Your task to perform on an android device: toggle pop-ups in chrome Image 0: 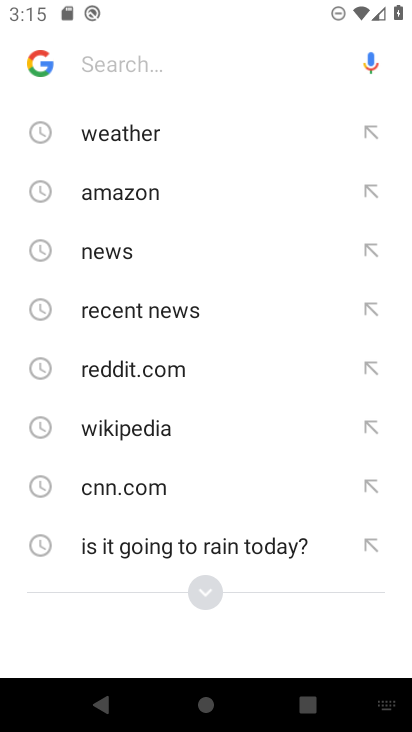
Step 0: press home button
Your task to perform on an android device: toggle pop-ups in chrome Image 1: 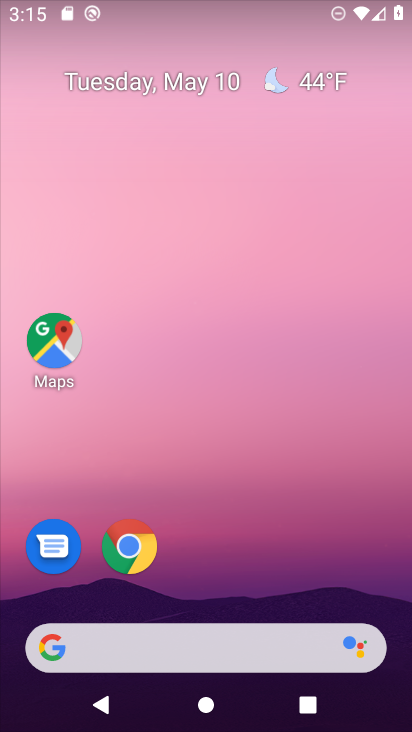
Step 1: drag from (256, 364) to (300, 1)
Your task to perform on an android device: toggle pop-ups in chrome Image 2: 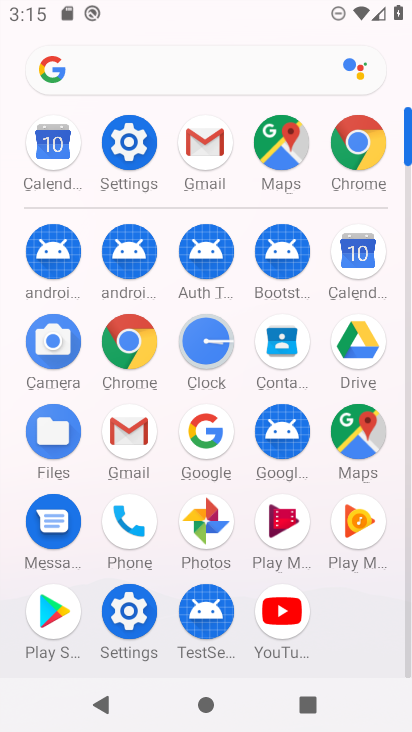
Step 2: click (344, 169)
Your task to perform on an android device: toggle pop-ups in chrome Image 3: 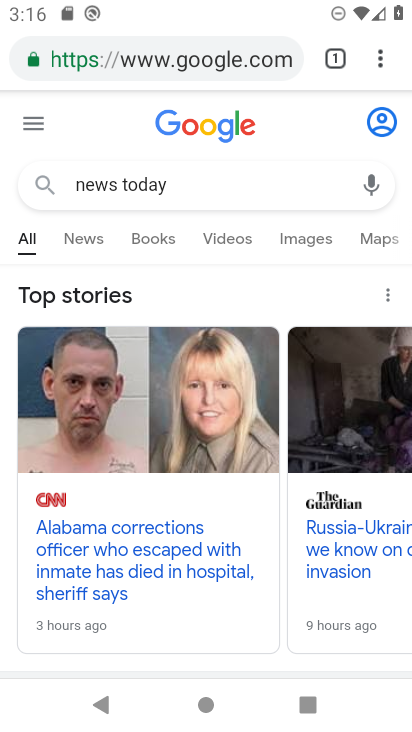
Step 3: click (377, 65)
Your task to perform on an android device: toggle pop-ups in chrome Image 4: 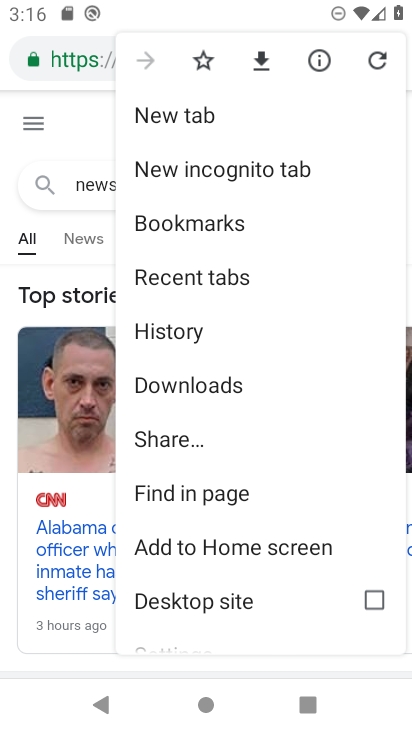
Step 4: drag from (319, 608) to (381, 180)
Your task to perform on an android device: toggle pop-ups in chrome Image 5: 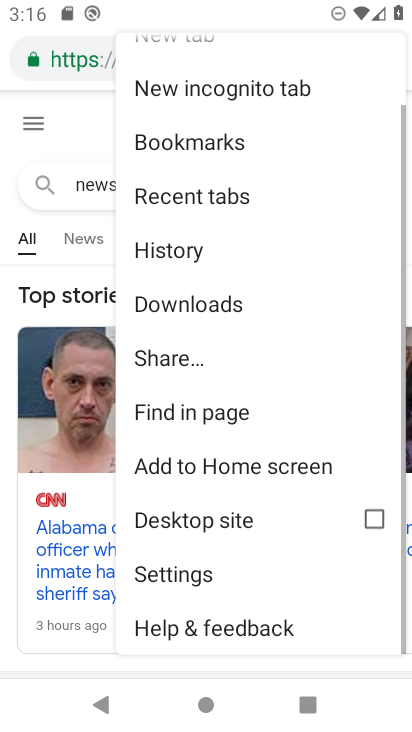
Step 5: click (184, 577)
Your task to perform on an android device: toggle pop-ups in chrome Image 6: 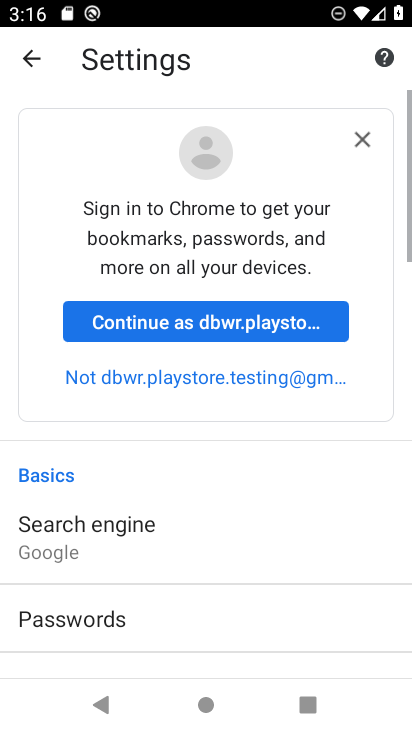
Step 6: drag from (285, 615) to (303, 183)
Your task to perform on an android device: toggle pop-ups in chrome Image 7: 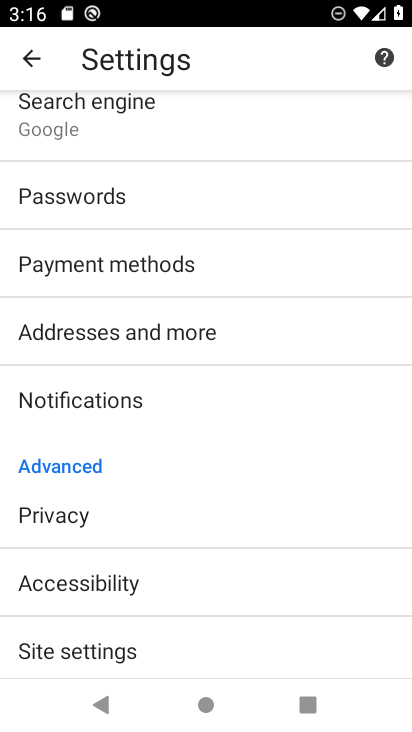
Step 7: drag from (251, 473) to (273, 256)
Your task to perform on an android device: toggle pop-ups in chrome Image 8: 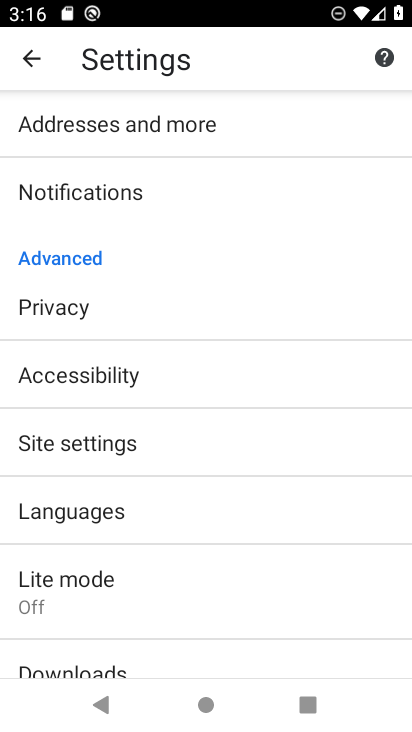
Step 8: click (186, 457)
Your task to perform on an android device: toggle pop-ups in chrome Image 9: 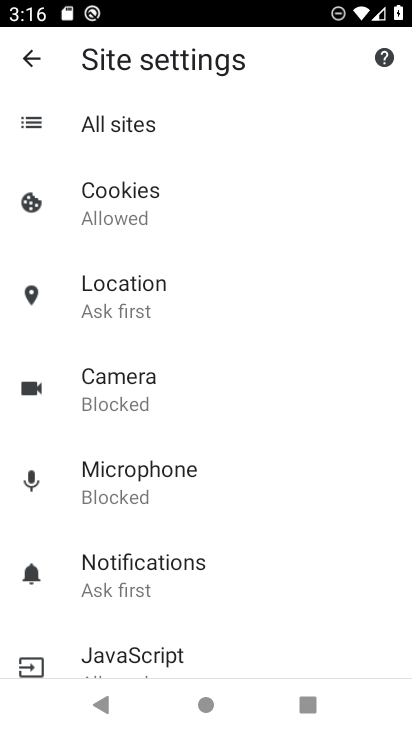
Step 9: drag from (298, 608) to (318, 179)
Your task to perform on an android device: toggle pop-ups in chrome Image 10: 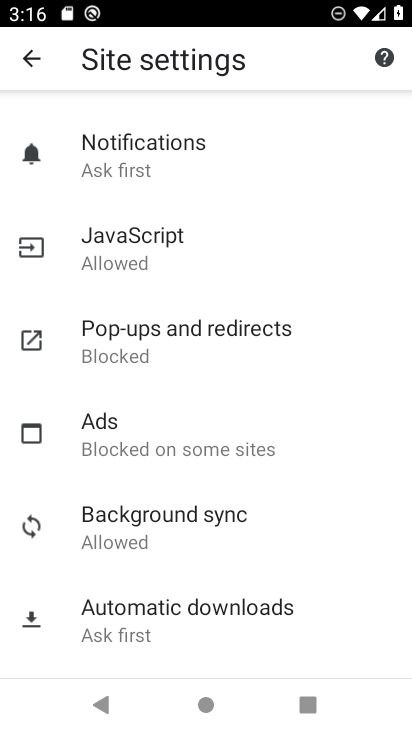
Step 10: drag from (326, 485) to (365, 131)
Your task to perform on an android device: toggle pop-ups in chrome Image 11: 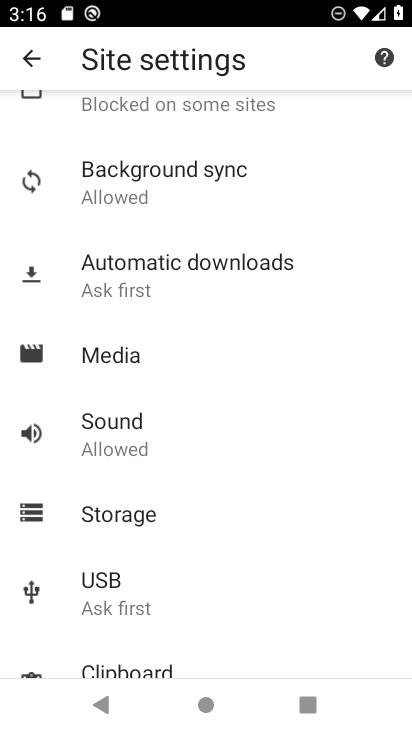
Step 11: drag from (340, 188) to (318, 447)
Your task to perform on an android device: toggle pop-ups in chrome Image 12: 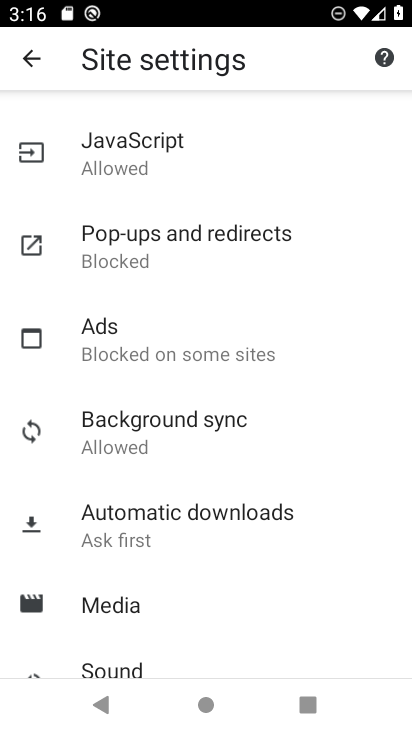
Step 12: click (226, 246)
Your task to perform on an android device: toggle pop-ups in chrome Image 13: 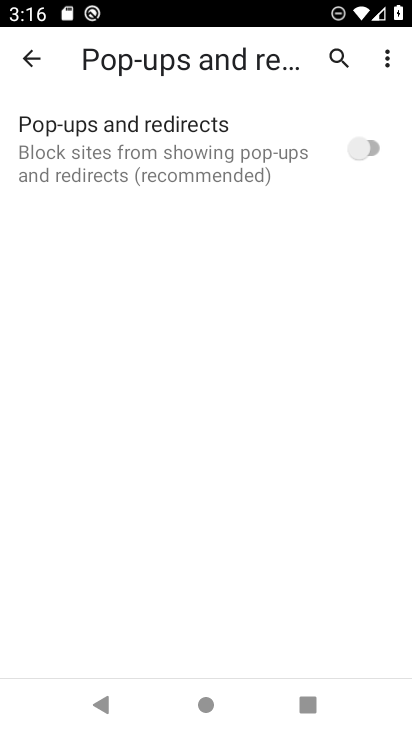
Step 13: click (369, 161)
Your task to perform on an android device: toggle pop-ups in chrome Image 14: 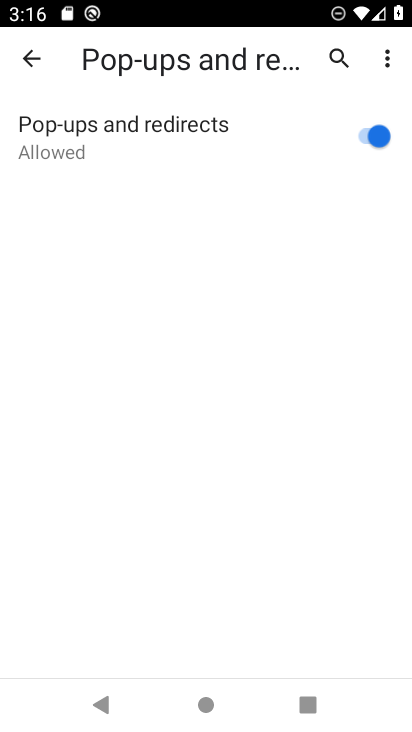
Step 14: task complete